Your task to perform on an android device: change the clock display to analog Image 0: 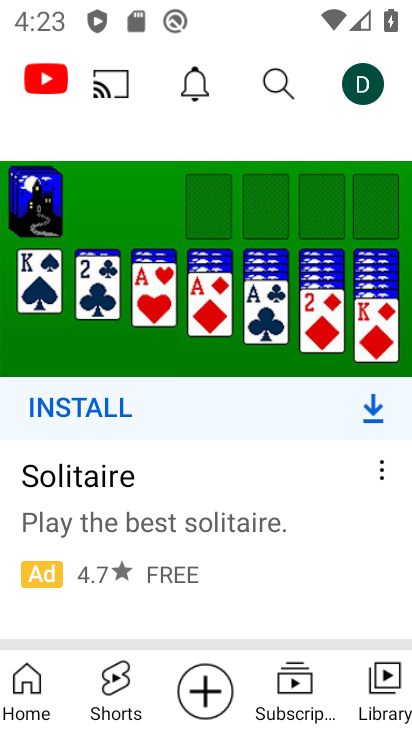
Step 0: press back button
Your task to perform on an android device: change the clock display to analog Image 1: 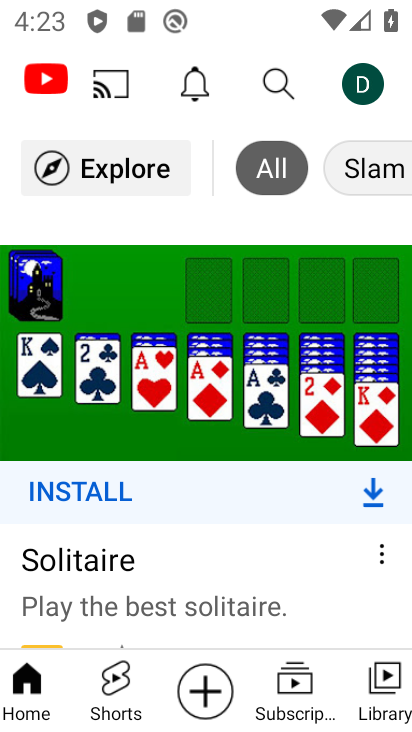
Step 1: press home button
Your task to perform on an android device: change the clock display to analog Image 2: 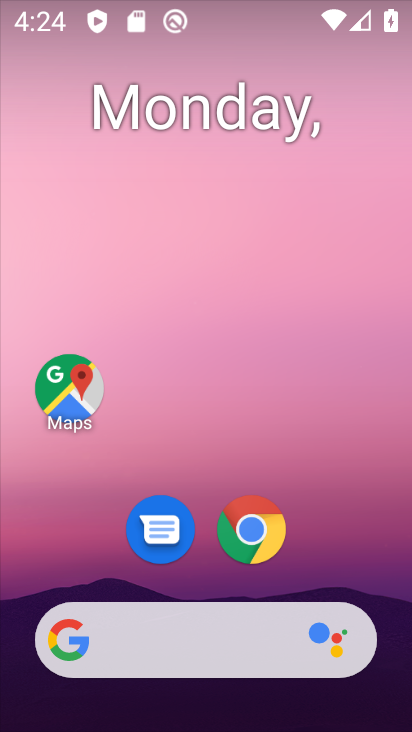
Step 2: drag from (215, 572) to (366, 0)
Your task to perform on an android device: change the clock display to analog Image 3: 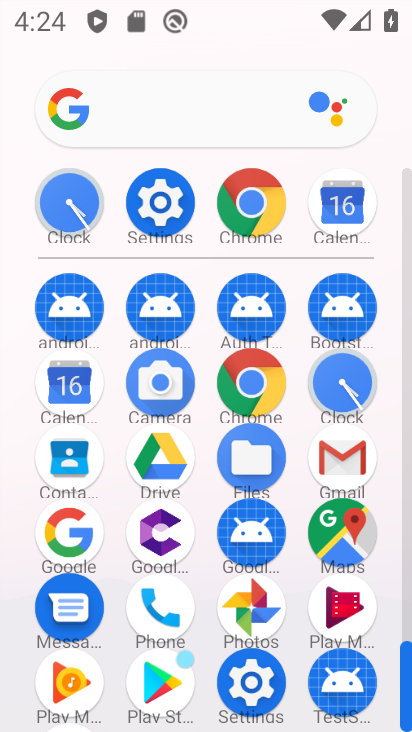
Step 3: click (357, 388)
Your task to perform on an android device: change the clock display to analog Image 4: 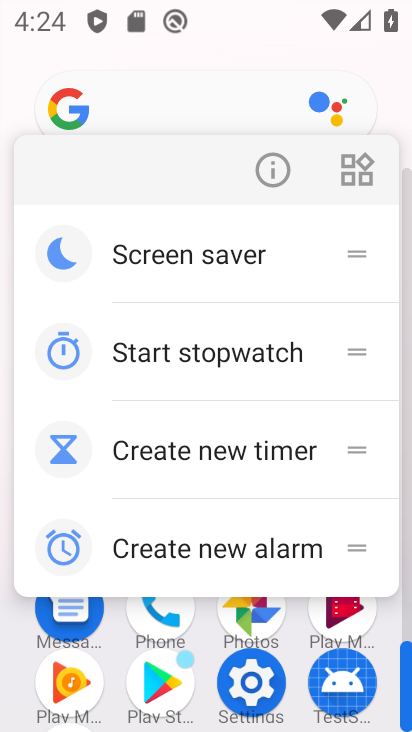
Step 4: click (264, 173)
Your task to perform on an android device: change the clock display to analog Image 5: 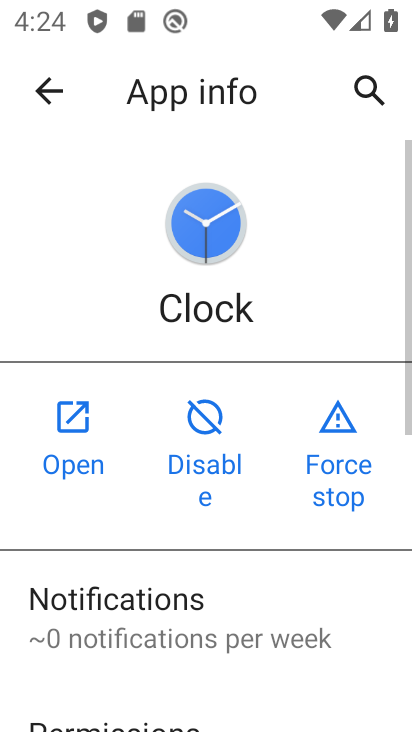
Step 5: click (76, 449)
Your task to perform on an android device: change the clock display to analog Image 6: 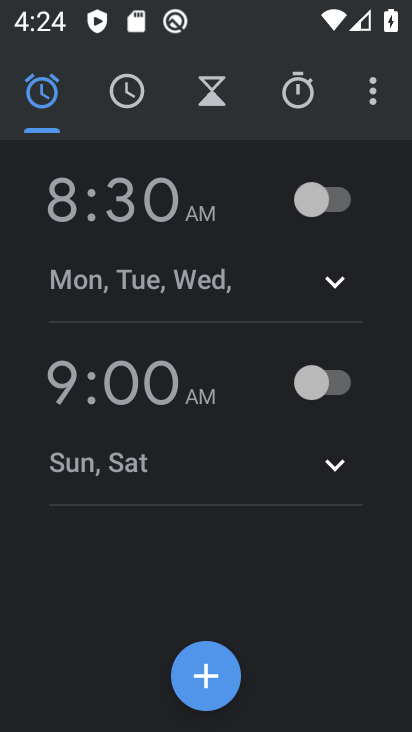
Step 6: click (371, 95)
Your task to perform on an android device: change the clock display to analog Image 7: 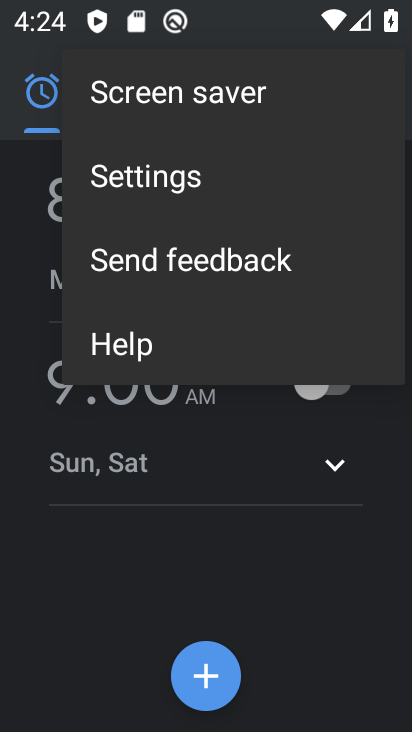
Step 7: click (193, 182)
Your task to perform on an android device: change the clock display to analog Image 8: 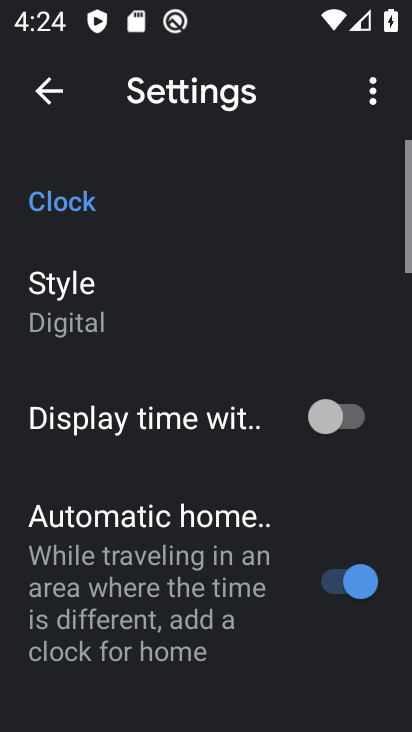
Step 8: click (126, 310)
Your task to perform on an android device: change the clock display to analog Image 9: 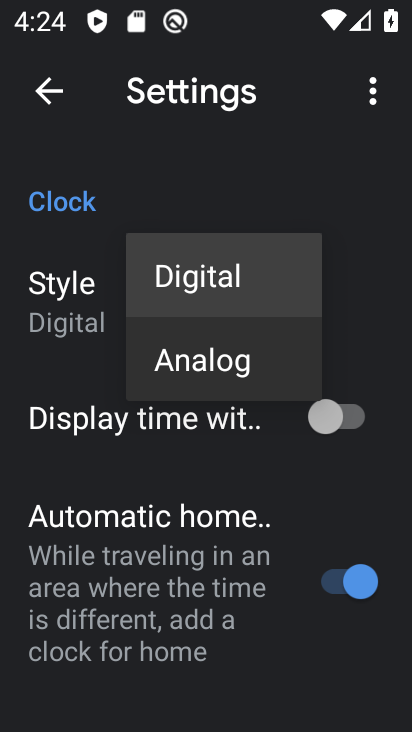
Step 9: click (175, 372)
Your task to perform on an android device: change the clock display to analog Image 10: 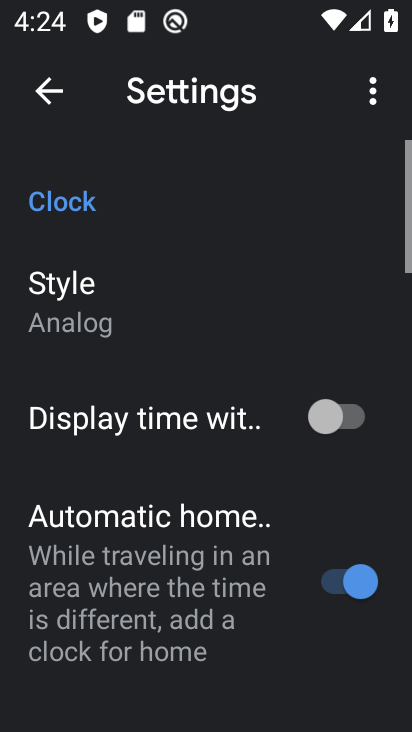
Step 10: task complete